Your task to perform on an android device: Open the phone app and click the voicemail tab. Image 0: 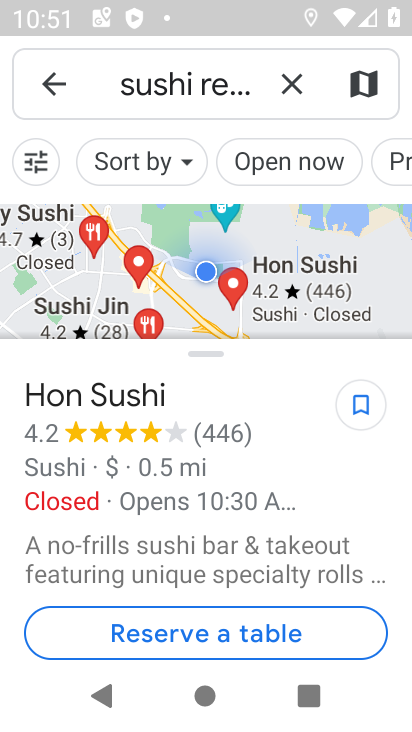
Step 0: press home button
Your task to perform on an android device: Open the phone app and click the voicemail tab. Image 1: 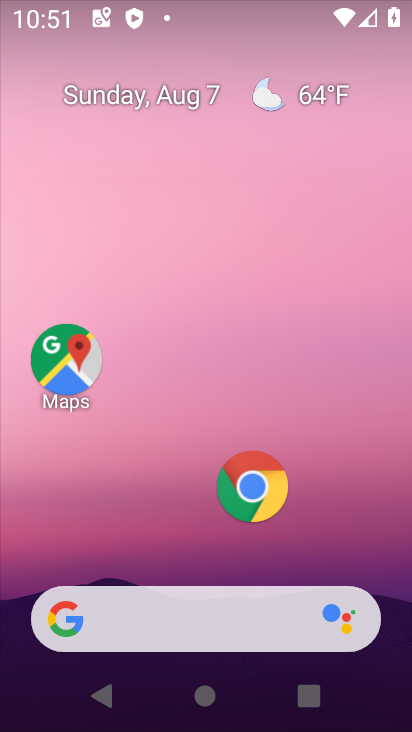
Step 1: drag from (169, 566) to (197, 170)
Your task to perform on an android device: Open the phone app and click the voicemail tab. Image 2: 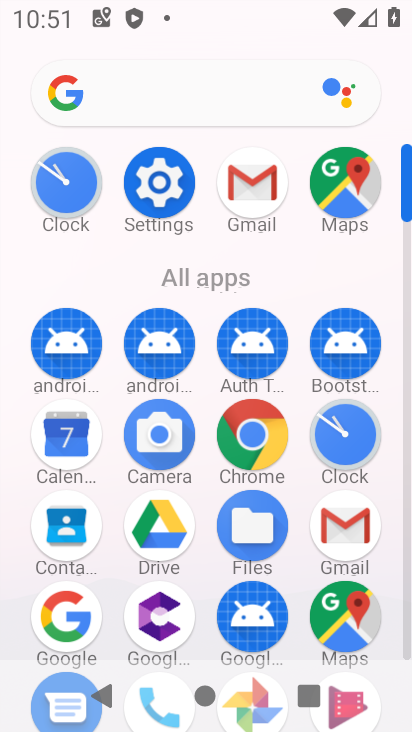
Step 2: drag from (159, 605) to (219, 205)
Your task to perform on an android device: Open the phone app and click the voicemail tab. Image 3: 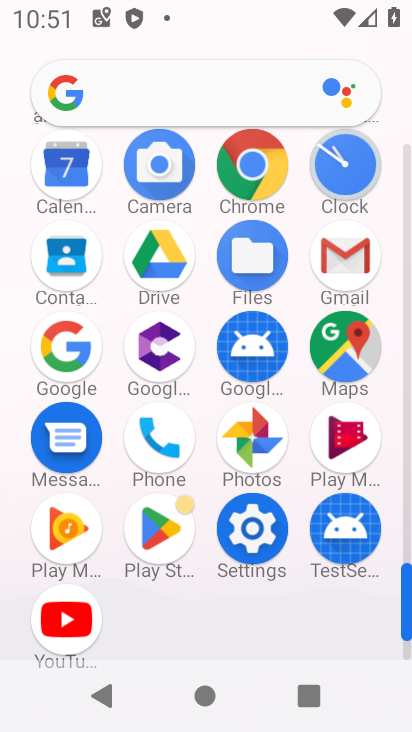
Step 3: click (158, 447)
Your task to perform on an android device: Open the phone app and click the voicemail tab. Image 4: 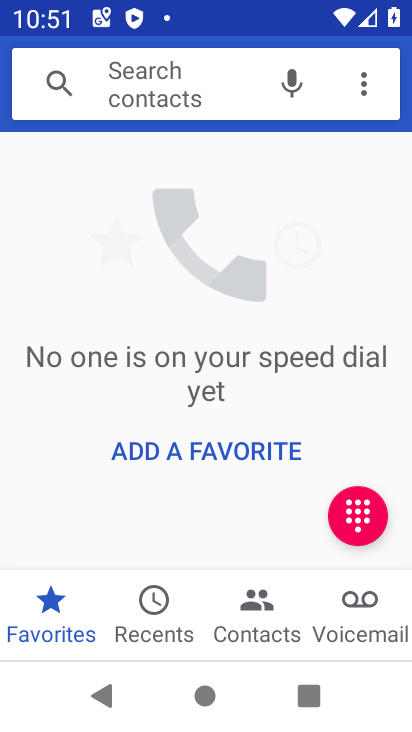
Step 4: click (374, 610)
Your task to perform on an android device: Open the phone app and click the voicemail tab. Image 5: 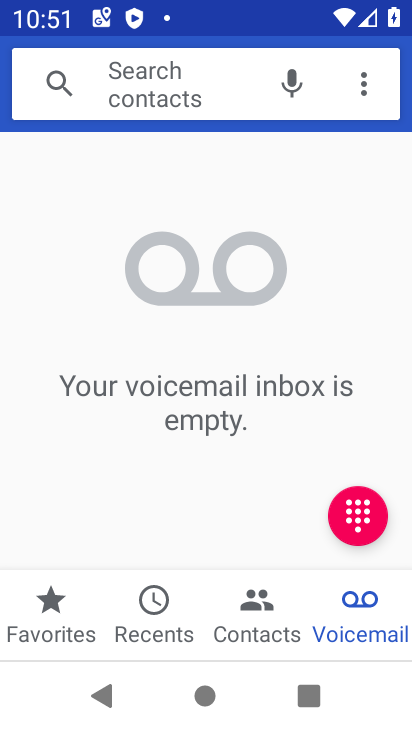
Step 5: task complete